Your task to perform on an android device: open sync settings in chrome Image 0: 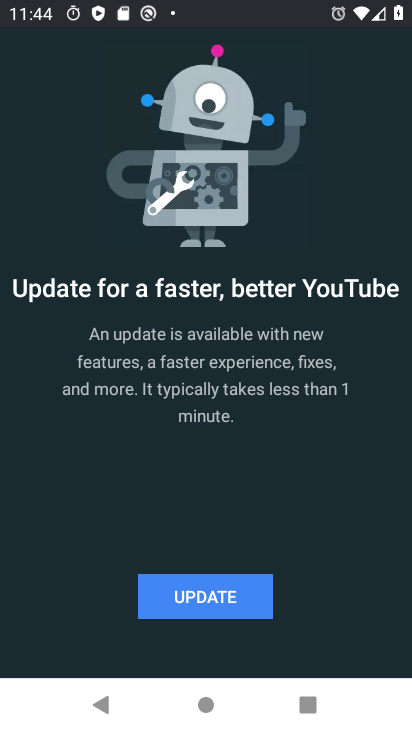
Step 0: press home button
Your task to perform on an android device: open sync settings in chrome Image 1: 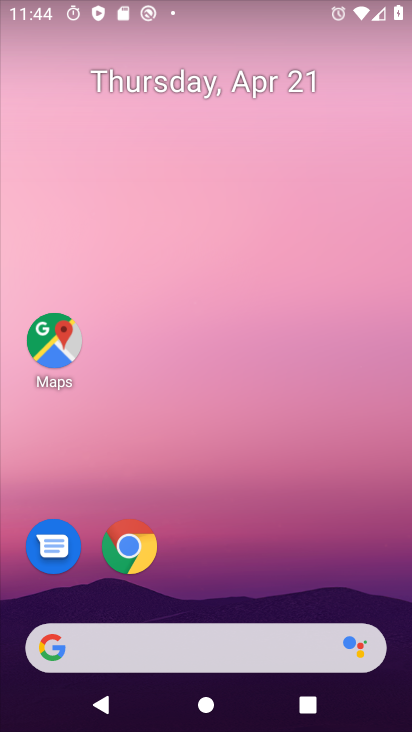
Step 1: click (133, 545)
Your task to perform on an android device: open sync settings in chrome Image 2: 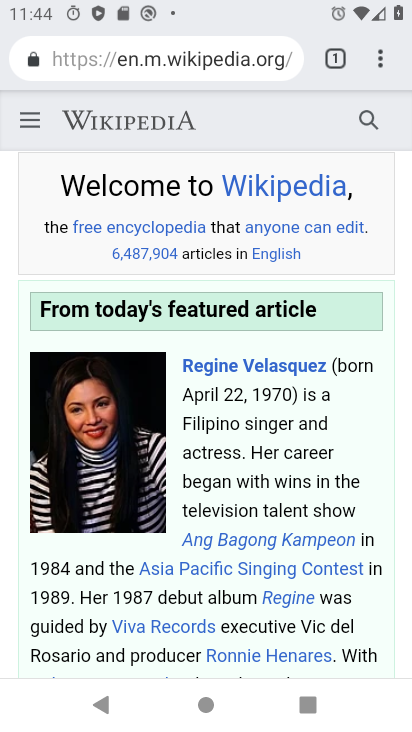
Step 2: click (375, 56)
Your task to perform on an android device: open sync settings in chrome Image 3: 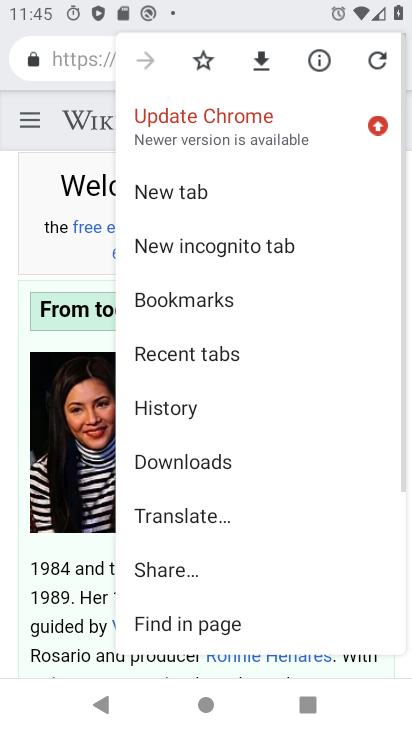
Step 3: drag from (170, 547) to (184, 163)
Your task to perform on an android device: open sync settings in chrome Image 4: 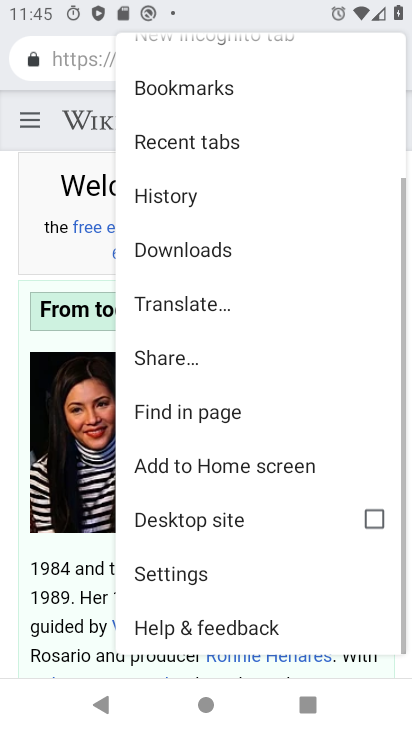
Step 4: click (181, 573)
Your task to perform on an android device: open sync settings in chrome Image 5: 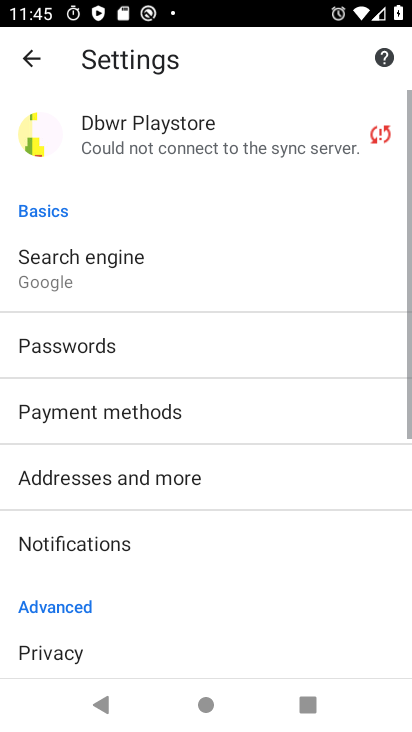
Step 5: drag from (167, 575) to (150, 157)
Your task to perform on an android device: open sync settings in chrome Image 6: 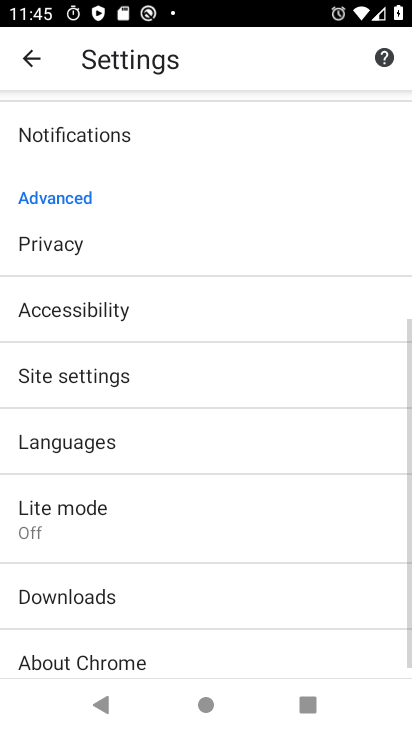
Step 6: drag from (173, 550) to (173, 219)
Your task to perform on an android device: open sync settings in chrome Image 7: 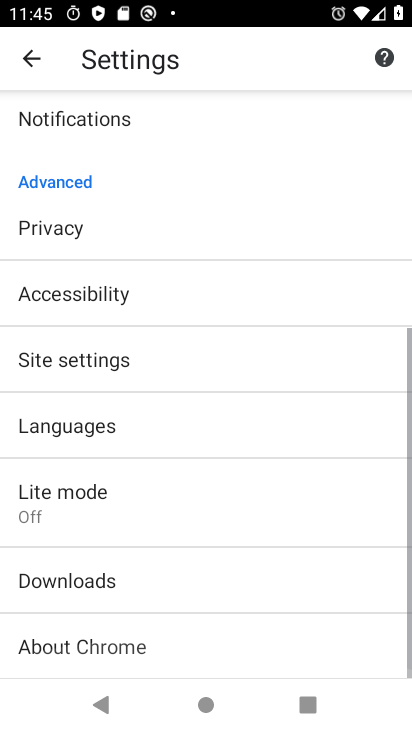
Step 7: click (79, 346)
Your task to perform on an android device: open sync settings in chrome Image 8: 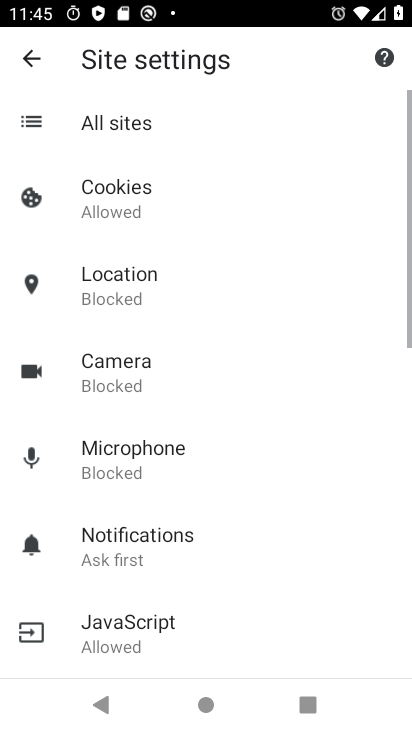
Step 8: drag from (218, 537) to (241, 135)
Your task to perform on an android device: open sync settings in chrome Image 9: 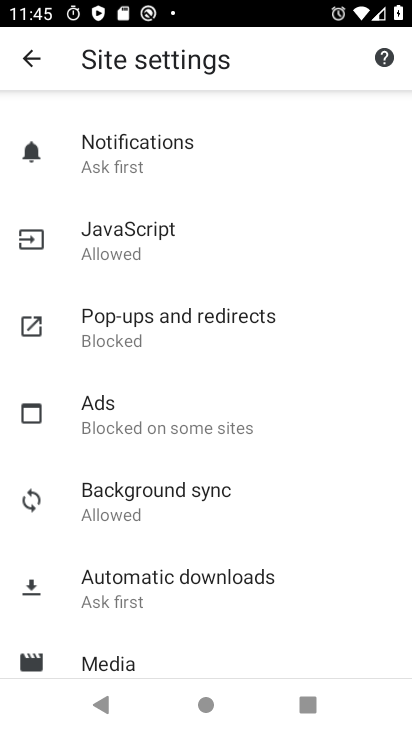
Step 9: click (172, 487)
Your task to perform on an android device: open sync settings in chrome Image 10: 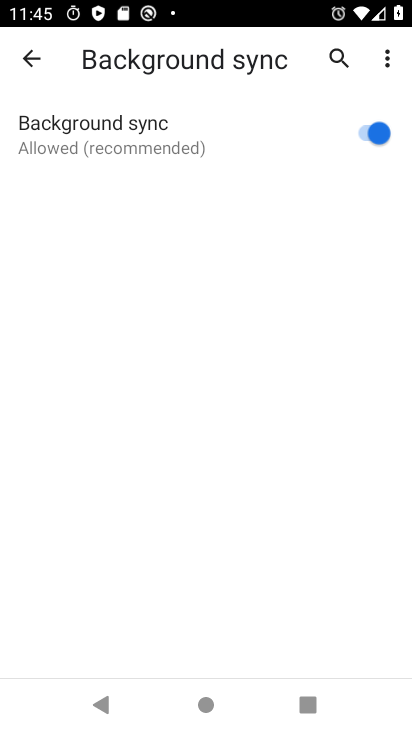
Step 10: task complete